Your task to perform on an android device: turn smart compose on in the gmail app Image 0: 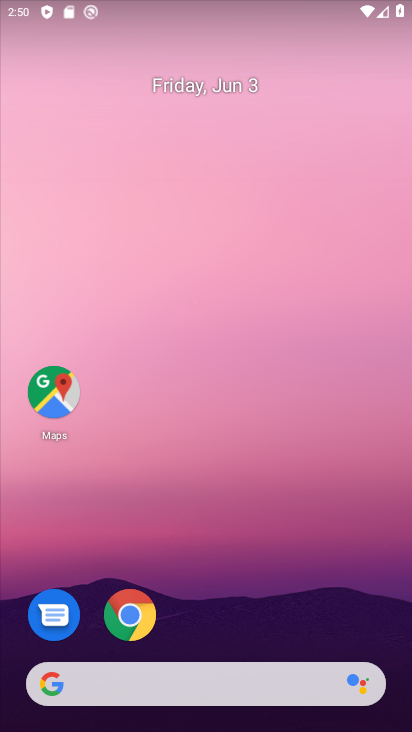
Step 0: drag from (182, 535) to (216, 222)
Your task to perform on an android device: turn smart compose on in the gmail app Image 1: 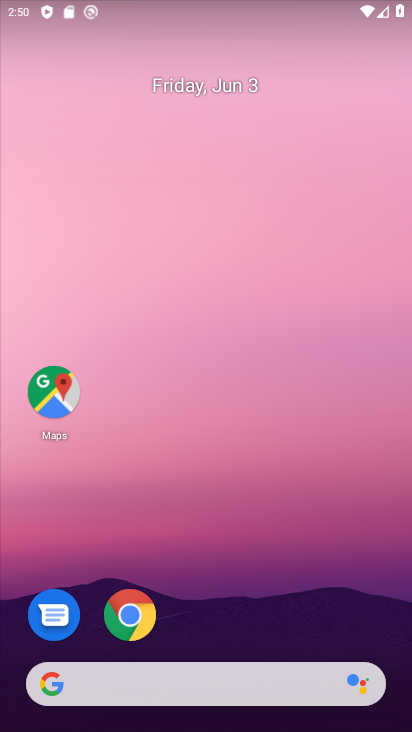
Step 1: drag from (122, 580) to (347, 38)
Your task to perform on an android device: turn smart compose on in the gmail app Image 2: 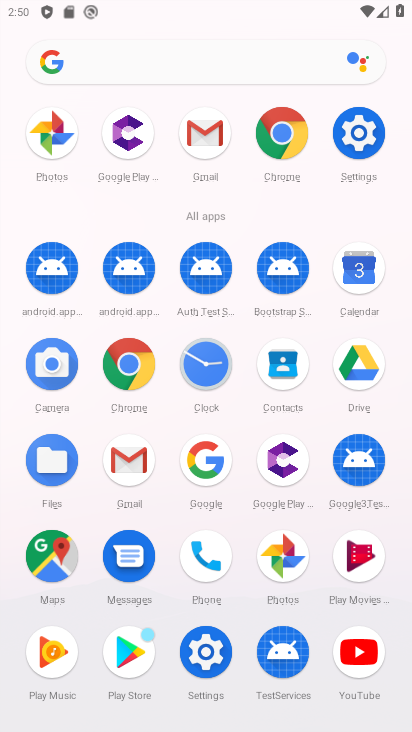
Step 2: click (213, 137)
Your task to perform on an android device: turn smart compose on in the gmail app Image 3: 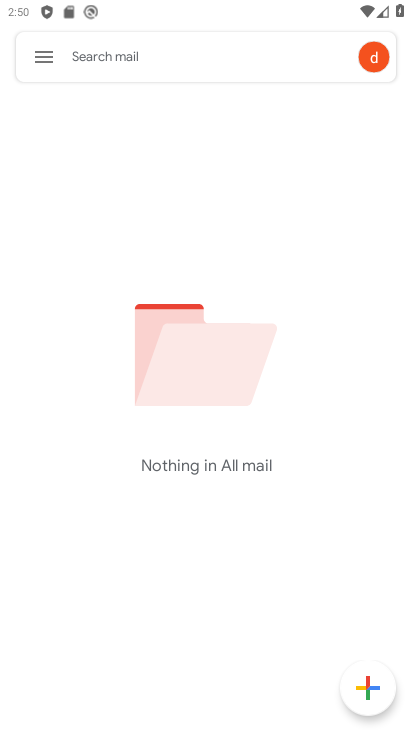
Step 3: click (39, 59)
Your task to perform on an android device: turn smart compose on in the gmail app Image 4: 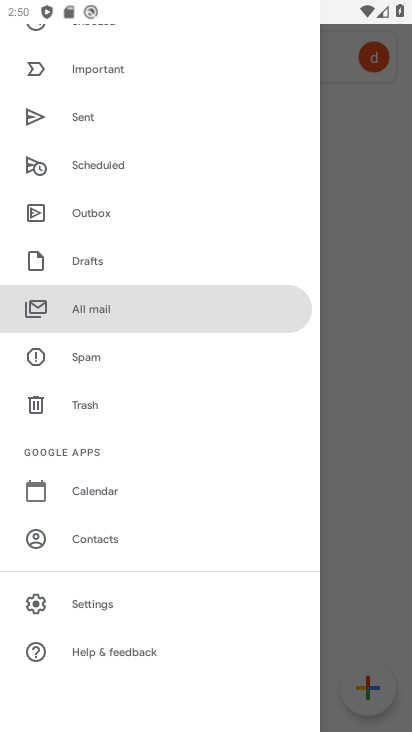
Step 4: click (109, 608)
Your task to perform on an android device: turn smart compose on in the gmail app Image 5: 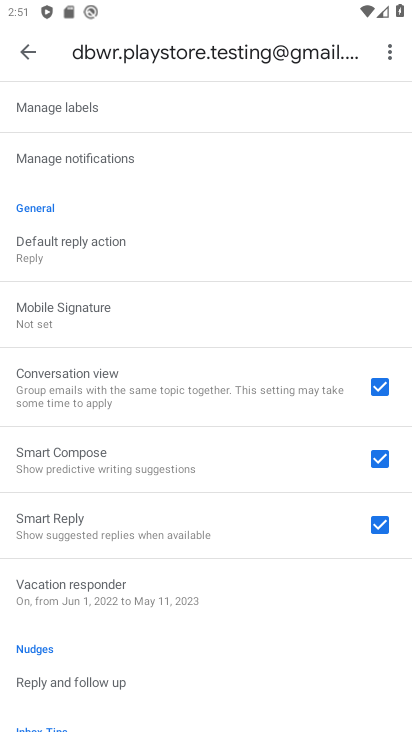
Step 5: task complete